Your task to perform on an android device: turn off wifi Image 0: 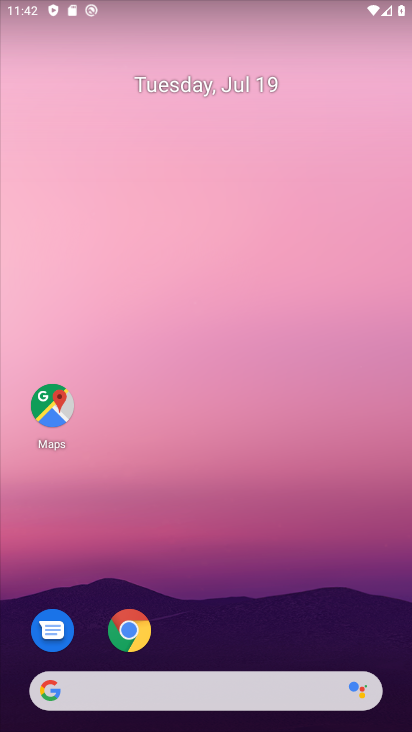
Step 0: drag from (240, 672) to (286, 208)
Your task to perform on an android device: turn off wifi Image 1: 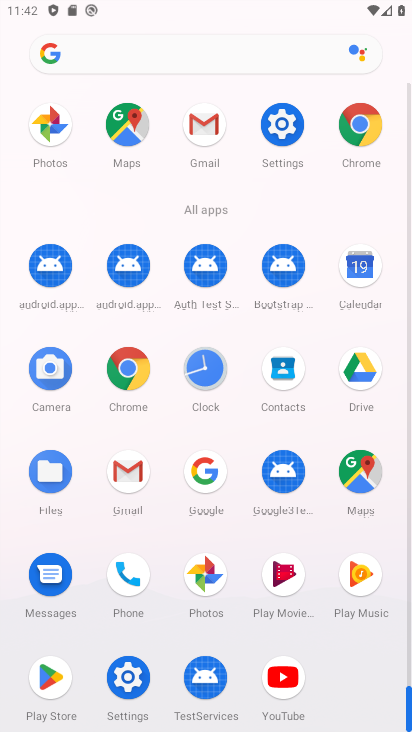
Step 1: click (281, 139)
Your task to perform on an android device: turn off wifi Image 2: 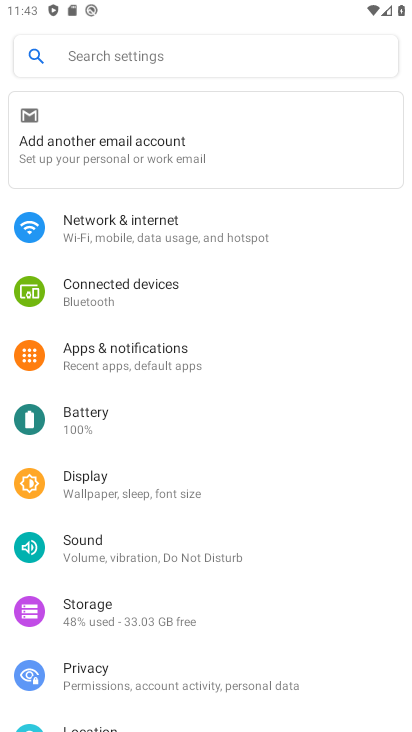
Step 2: click (147, 241)
Your task to perform on an android device: turn off wifi Image 3: 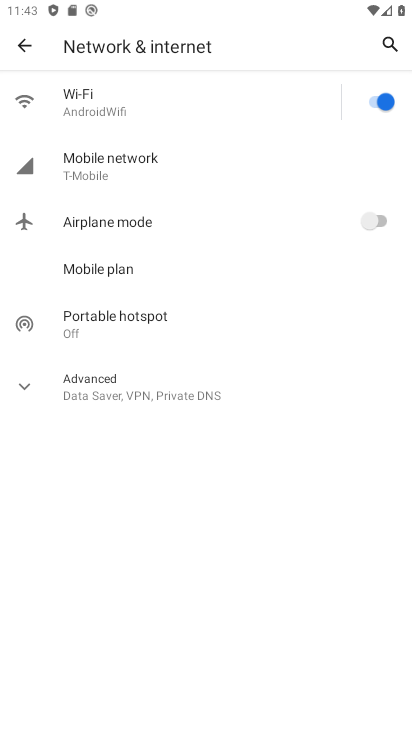
Step 3: click (378, 94)
Your task to perform on an android device: turn off wifi Image 4: 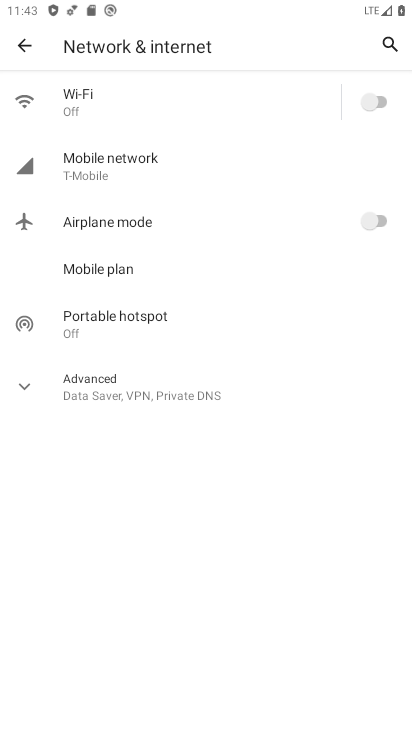
Step 4: task complete